Your task to perform on an android device: delete a single message in the gmail app Image 0: 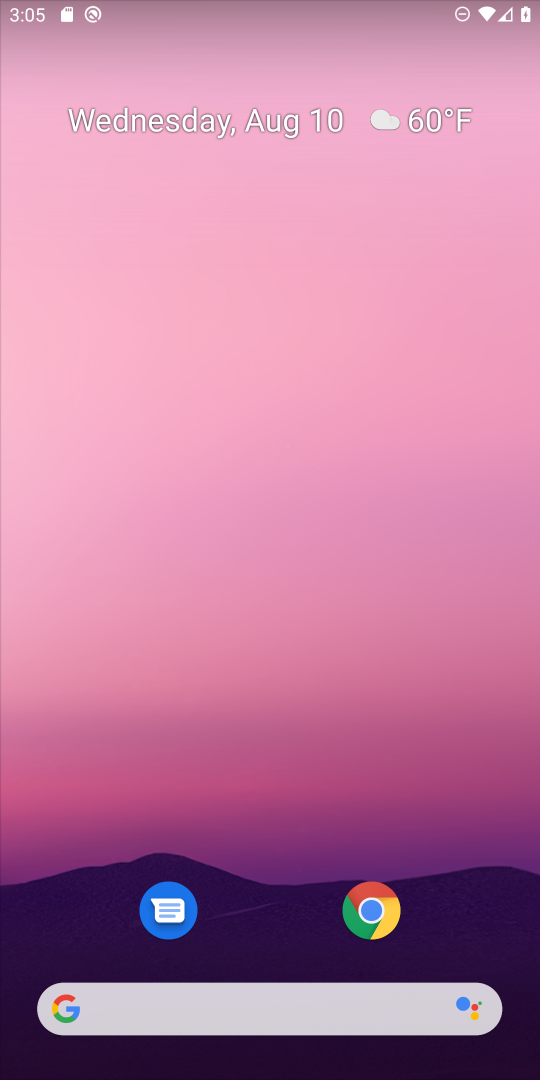
Step 0: drag from (254, 970) to (322, 193)
Your task to perform on an android device: delete a single message in the gmail app Image 1: 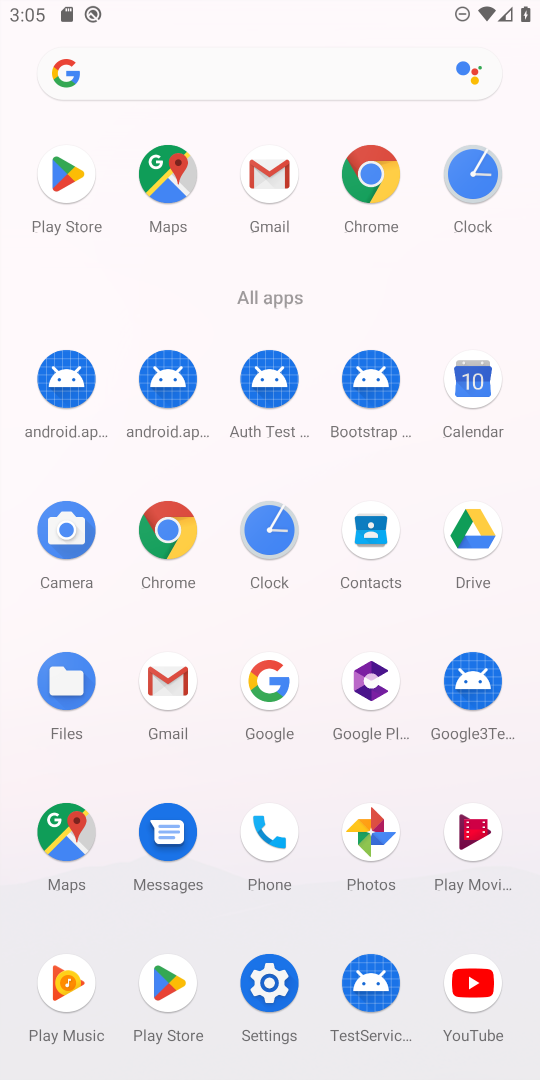
Step 1: click (253, 190)
Your task to perform on an android device: delete a single message in the gmail app Image 2: 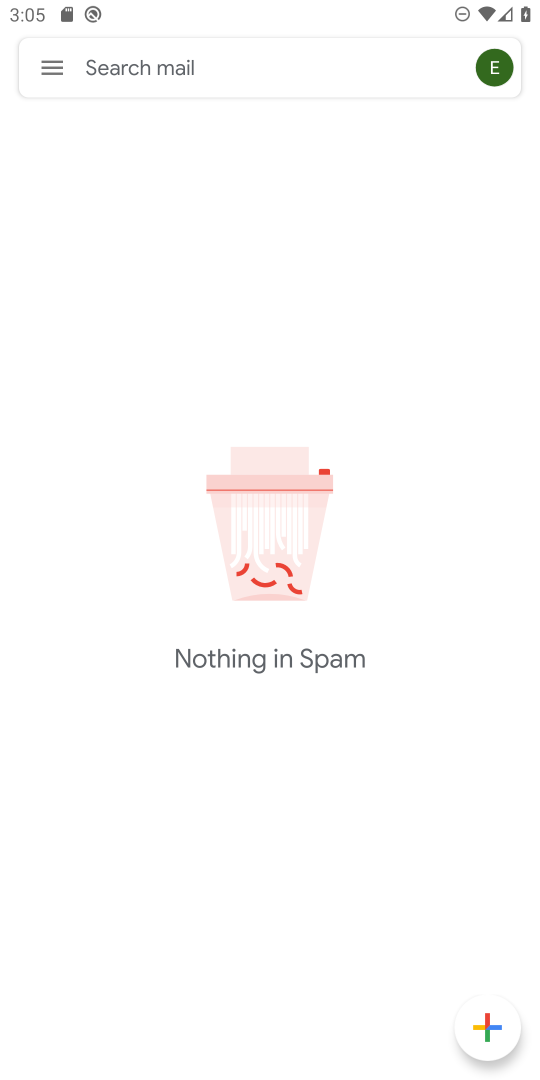
Step 2: click (57, 56)
Your task to perform on an android device: delete a single message in the gmail app Image 3: 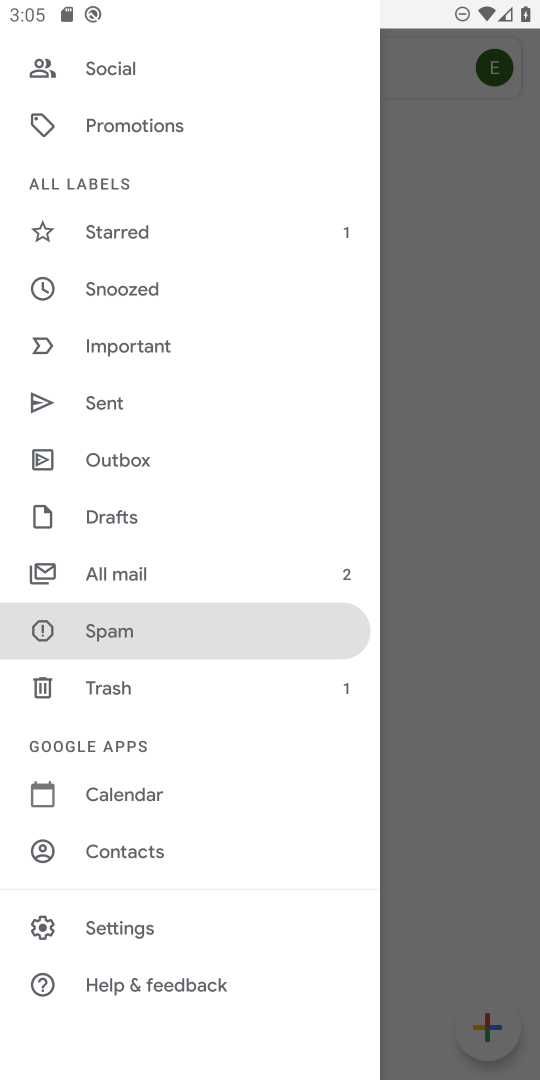
Step 3: drag from (211, 186) to (190, 597)
Your task to perform on an android device: delete a single message in the gmail app Image 4: 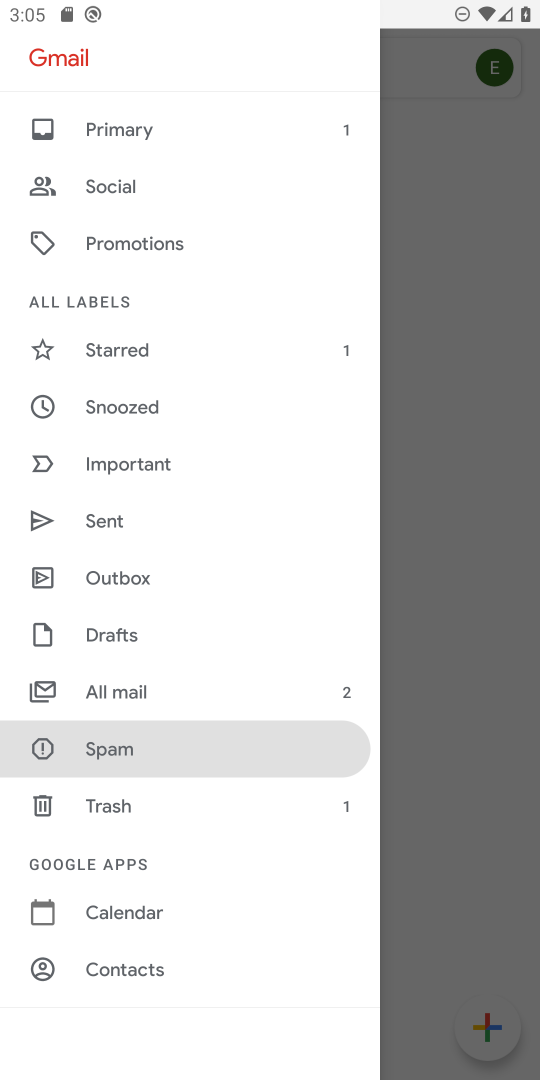
Step 4: click (174, 705)
Your task to perform on an android device: delete a single message in the gmail app Image 5: 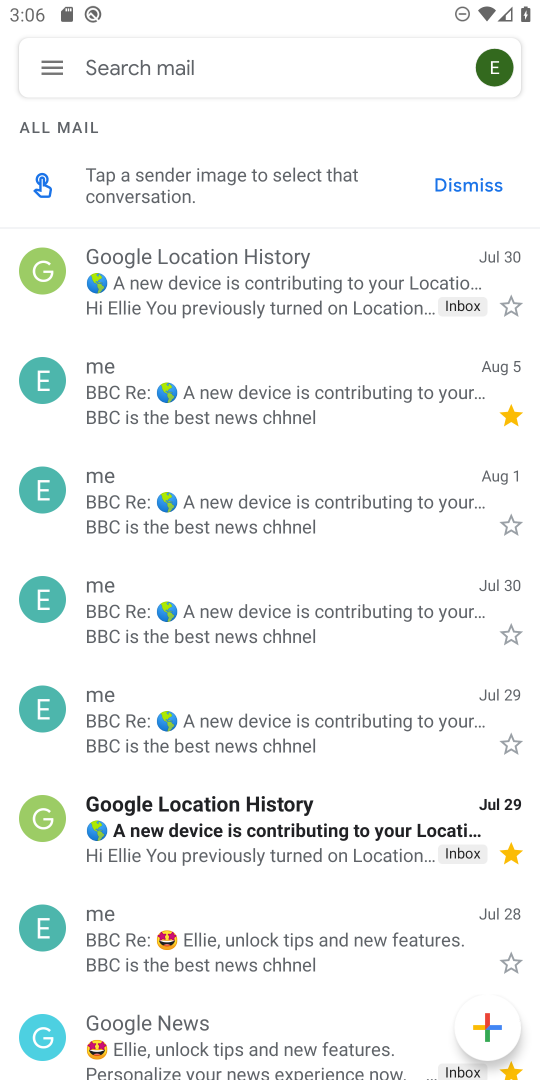
Step 5: click (174, 705)
Your task to perform on an android device: delete a single message in the gmail app Image 6: 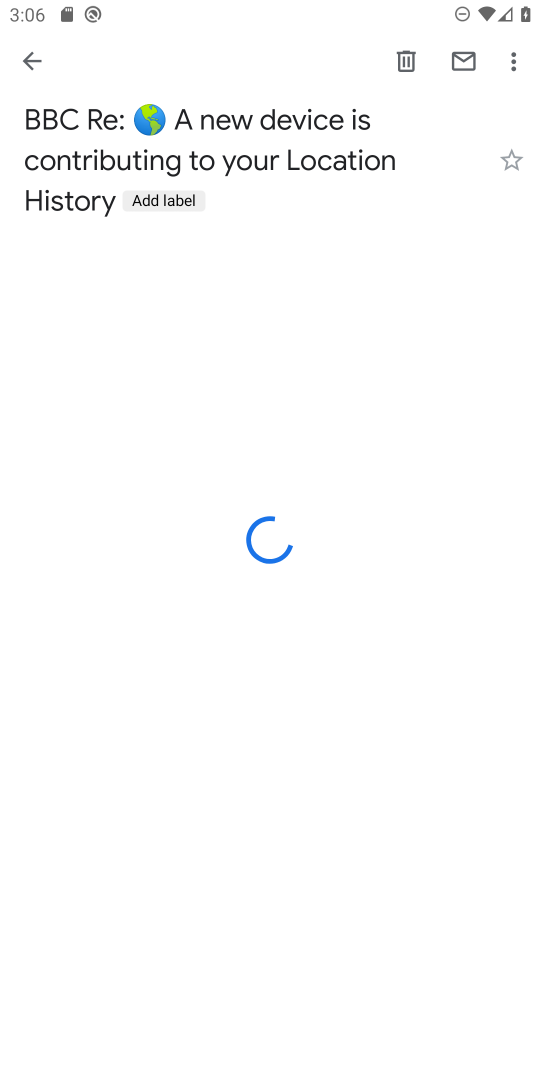
Step 6: click (160, 274)
Your task to perform on an android device: delete a single message in the gmail app Image 7: 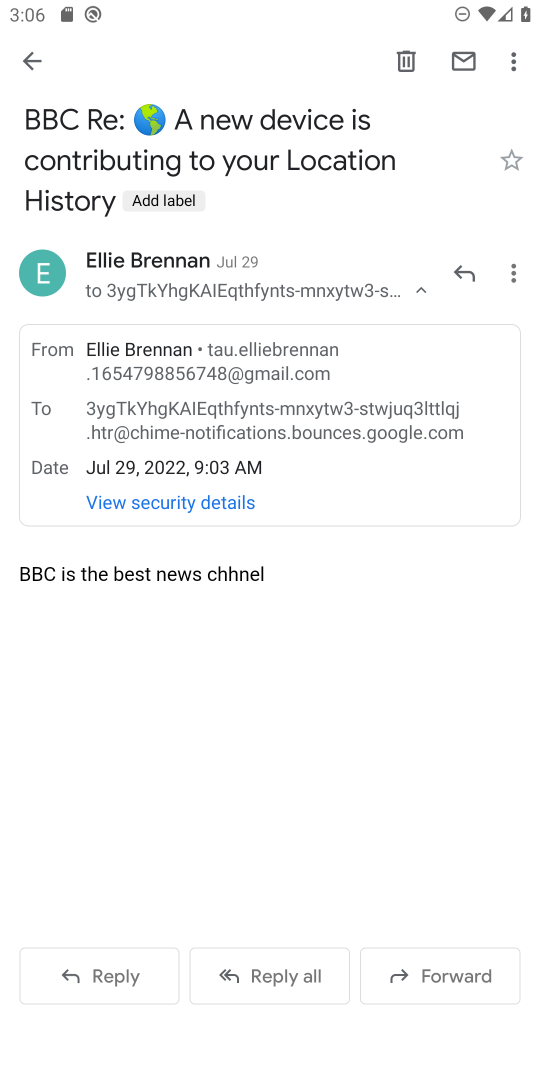
Step 7: click (397, 59)
Your task to perform on an android device: delete a single message in the gmail app Image 8: 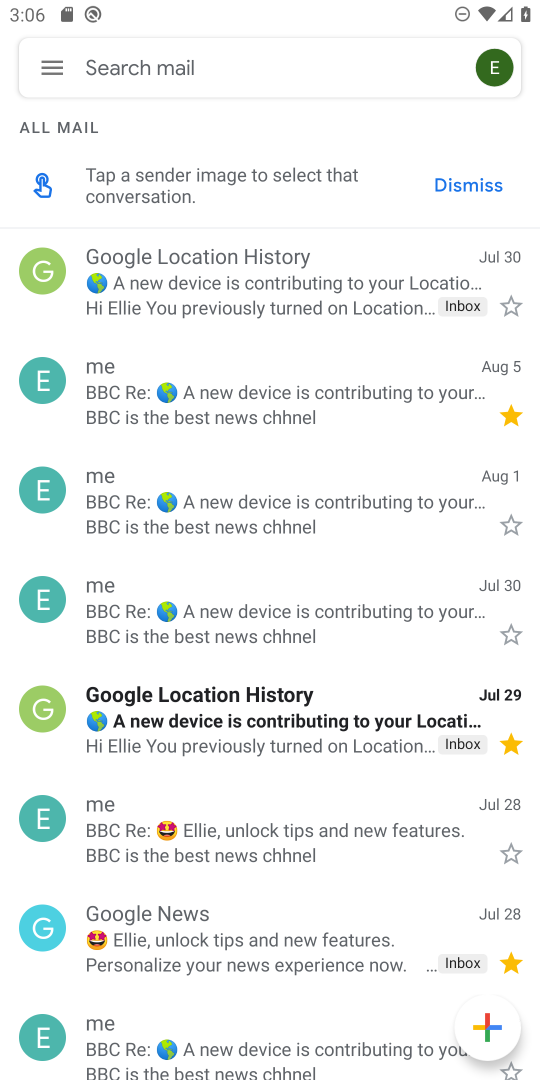
Step 8: task complete